Your task to perform on an android device: turn vacation reply on in the gmail app Image 0: 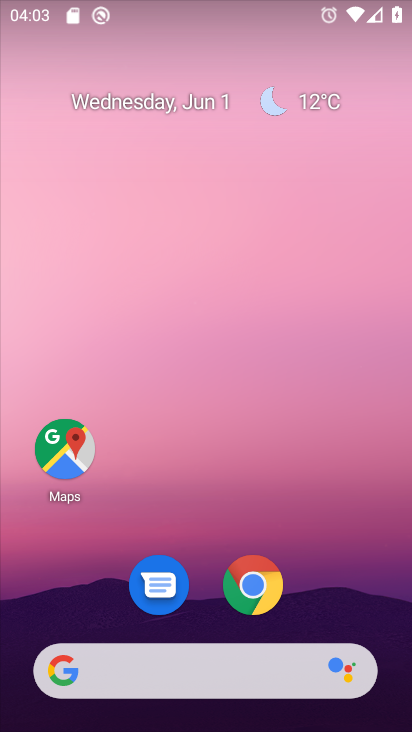
Step 0: drag from (240, 500) to (260, 9)
Your task to perform on an android device: turn vacation reply on in the gmail app Image 1: 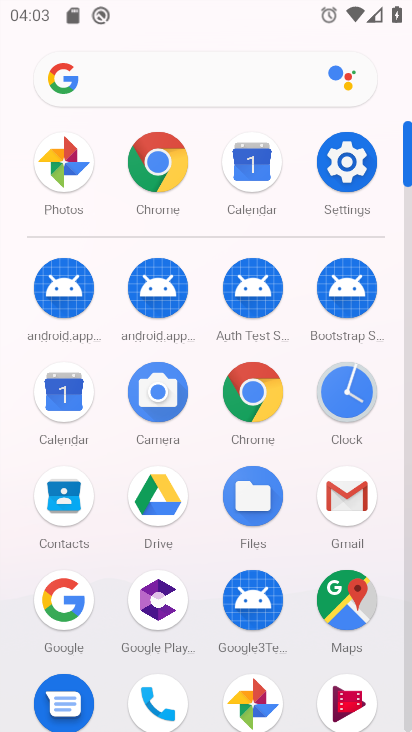
Step 1: click (342, 496)
Your task to perform on an android device: turn vacation reply on in the gmail app Image 2: 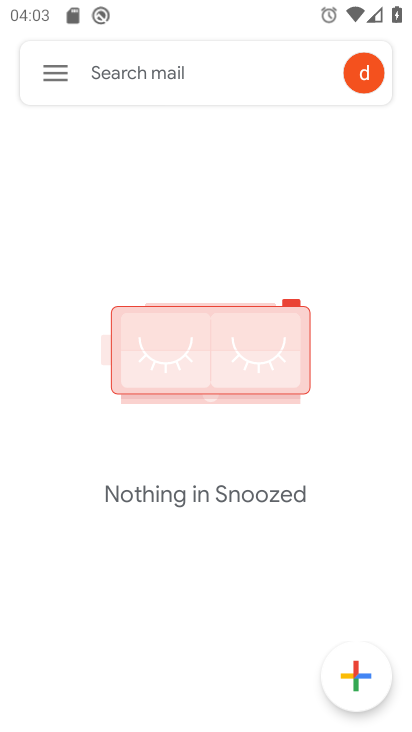
Step 2: click (53, 69)
Your task to perform on an android device: turn vacation reply on in the gmail app Image 3: 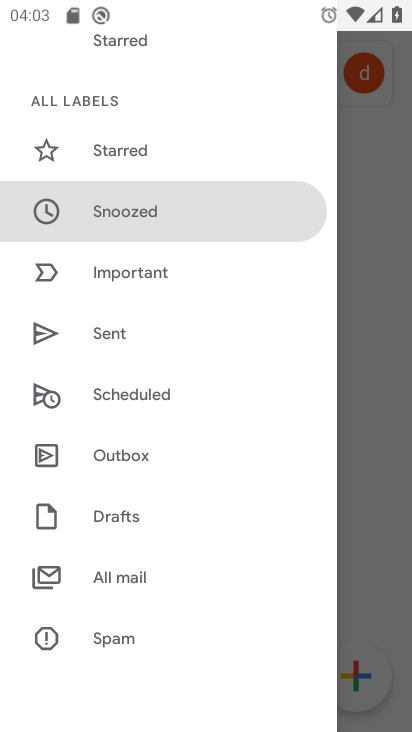
Step 3: drag from (182, 526) to (202, 5)
Your task to perform on an android device: turn vacation reply on in the gmail app Image 4: 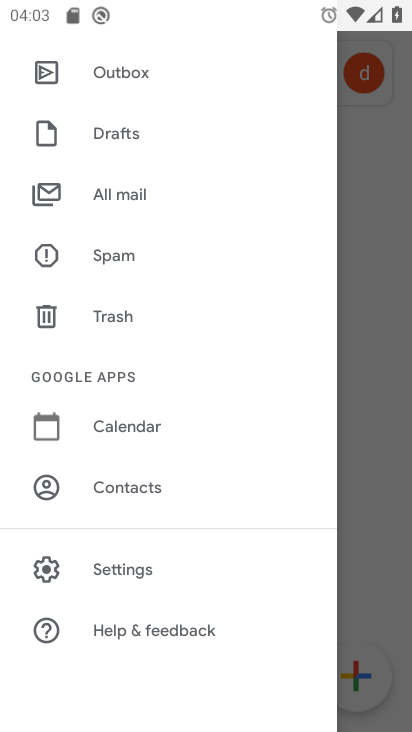
Step 4: click (142, 573)
Your task to perform on an android device: turn vacation reply on in the gmail app Image 5: 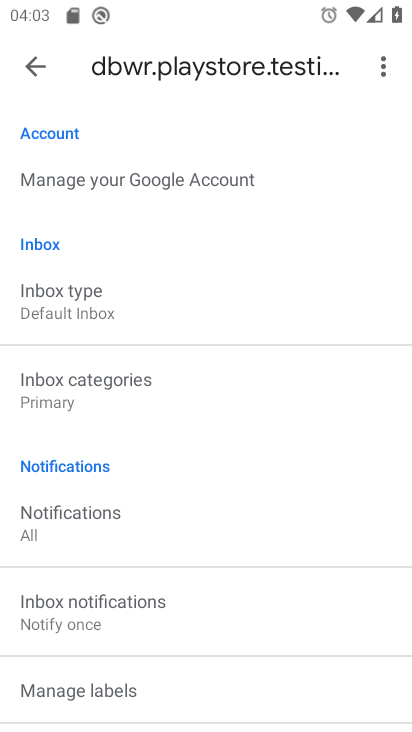
Step 5: drag from (227, 614) to (248, 1)
Your task to perform on an android device: turn vacation reply on in the gmail app Image 6: 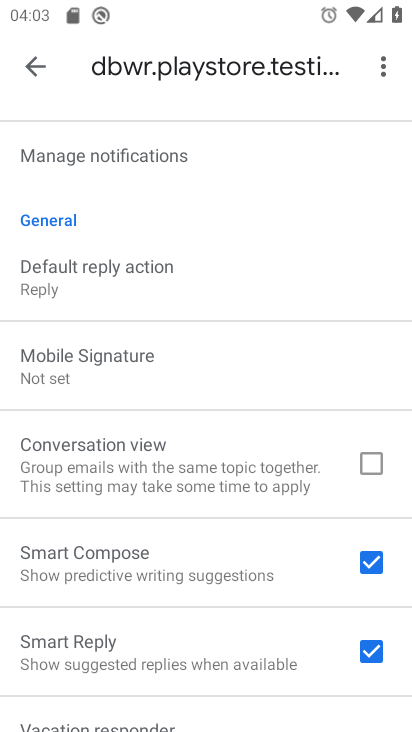
Step 6: drag from (197, 617) to (243, 143)
Your task to perform on an android device: turn vacation reply on in the gmail app Image 7: 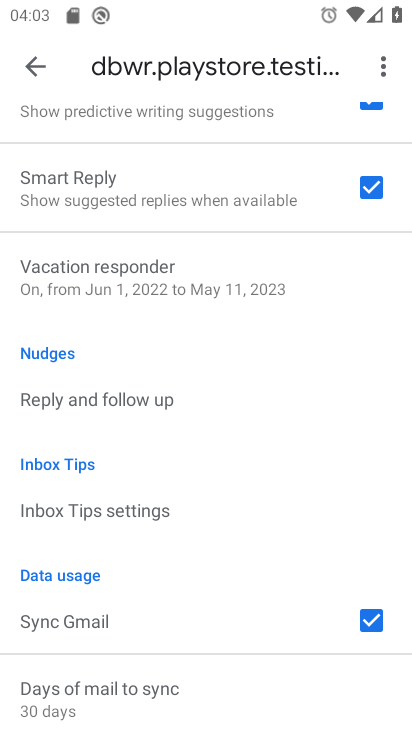
Step 7: click (227, 289)
Your task to perform on an android device: turn vacation reply on in the gmail app Image 8: 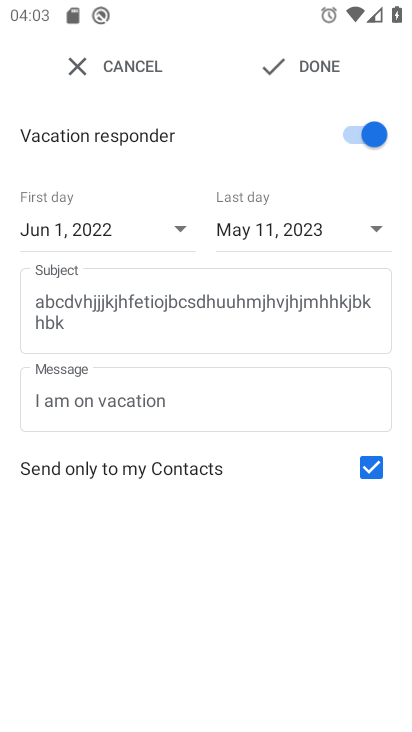
Step 8: task complete